Your task to perform on an android device: Go to display settings Image 0: 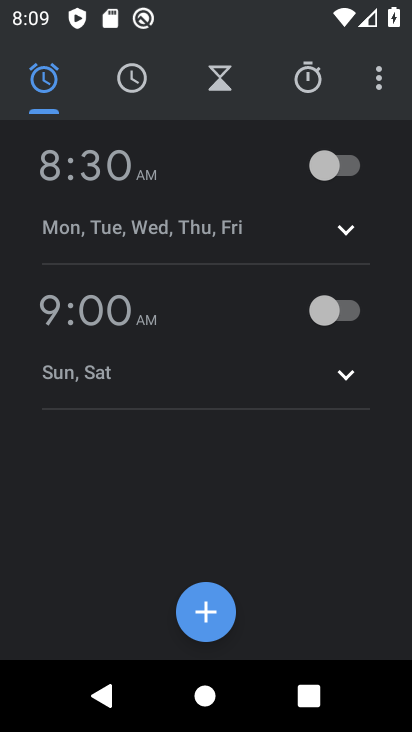
Step 0: press home button
Your task to perform on an android device: Go to display settings Image 1: 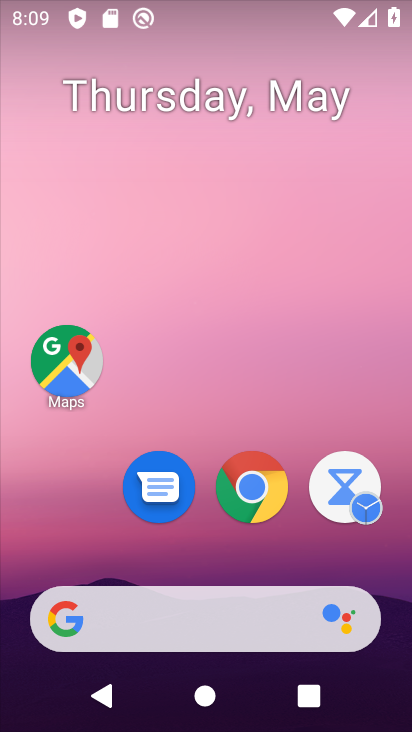
Step 1: drag from (295, 556) to (295, 172)
Your task to perform on an android device: Go to display settings Image 2: 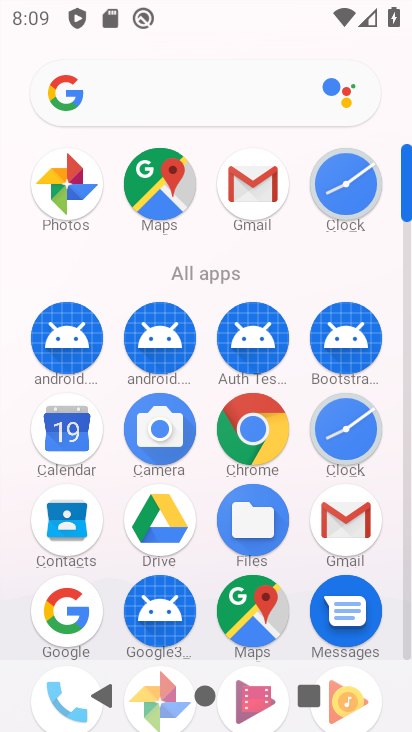
Step 2: drag from (395, 500) to (399, 207)
Your task to perform on an android device: Go to display settings Image 3: 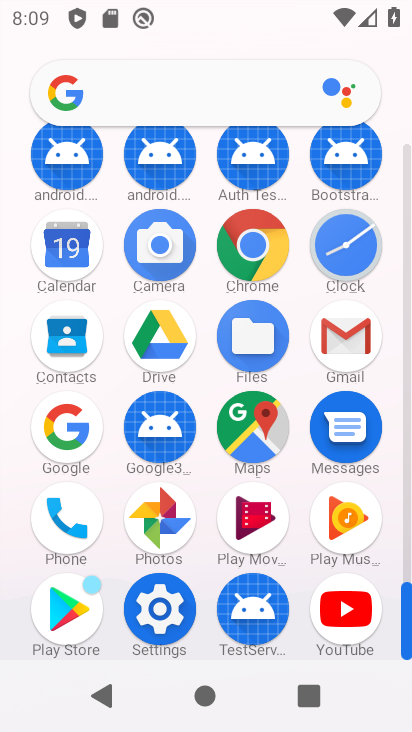
Step 3: click (157, 628)
Your task to perform on an android device: Go to display settings Image 4: 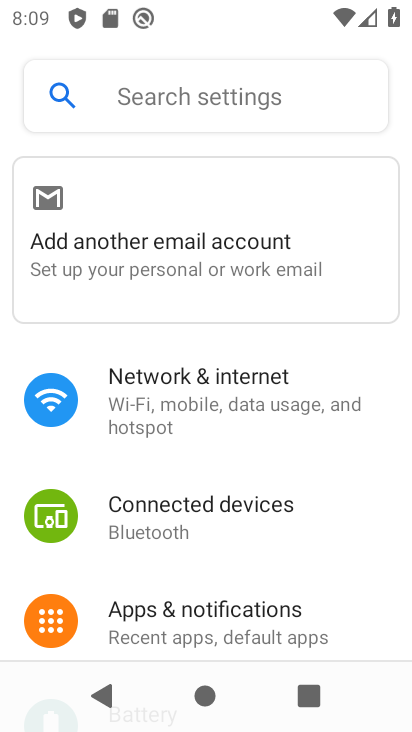
Step 4: drag from (360, 611) to (365, 491)
Your task to perform on an android device: Go to display settings Image 5: 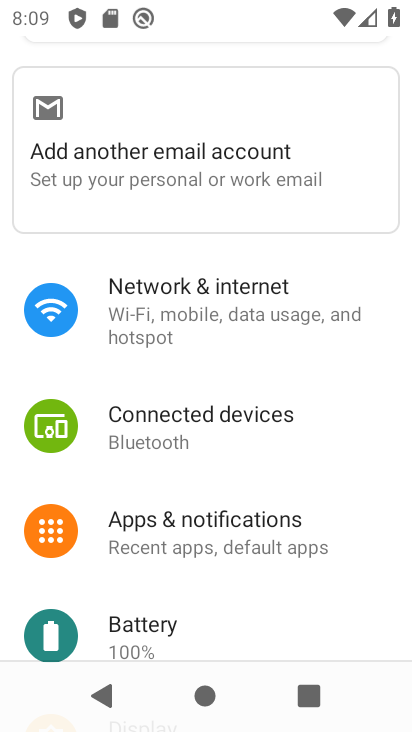
Step 5: drag from (356, 623) to (351, 475)
Your task to perform on an android device: Go to display settings Image 6: 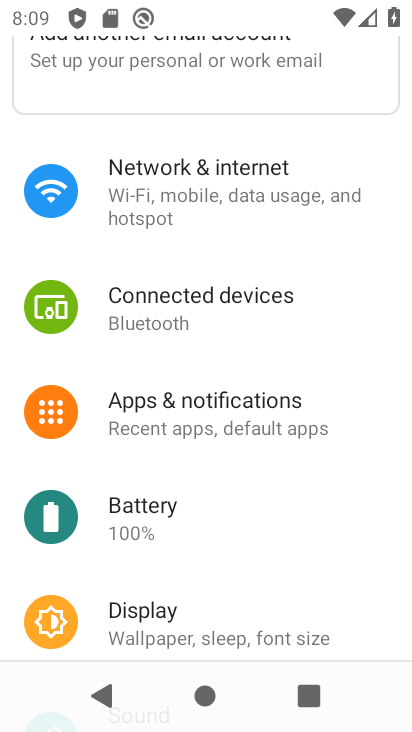
Step 6: drag from (354, 583) to (361, 451)
Your task to perform on an android device: Go to display settings Image 7: 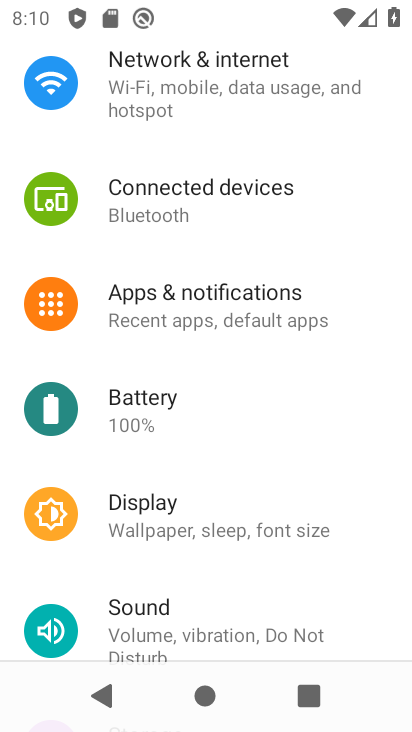
Step 7: drag from (349, 634) to (359, 505)
Your task to perform on an android device: Go to display settings Image 8: 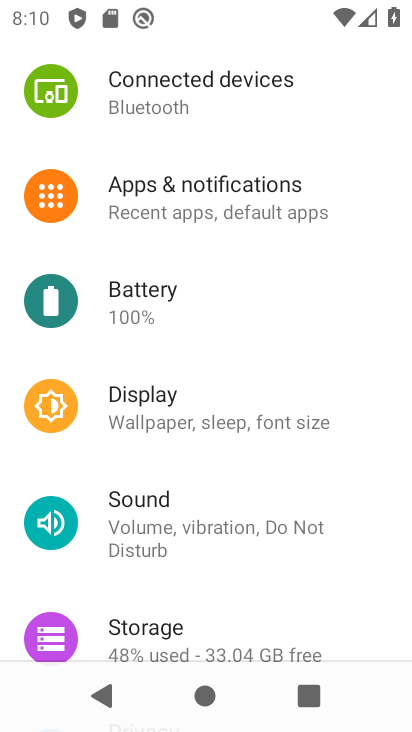
Step 8: drag from (356, 635) to (371, 527)
Your task to perform on an android device: Go to display settings Image 9: 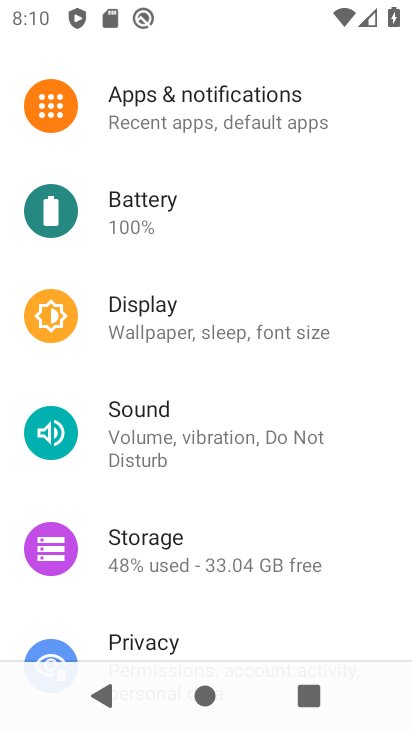
Step 9: drag from (365, 624) to (375, 488)
Your task to perform on an android device: Go to display settings Image 10: 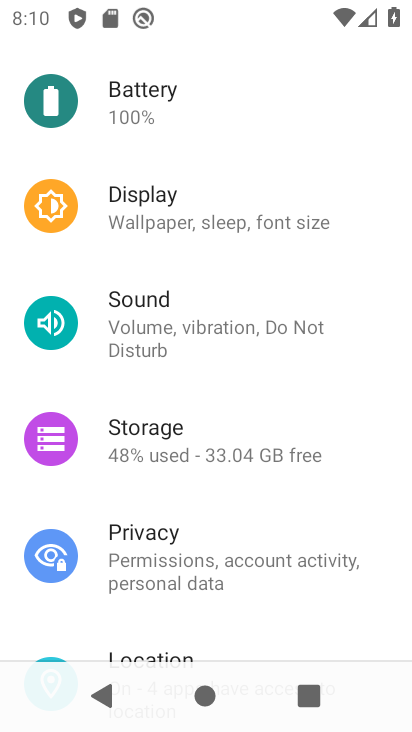
Step 10: drag from (362, 632) to (375, 501)
Your task to perform on an android device: Go to display settings Image 11: 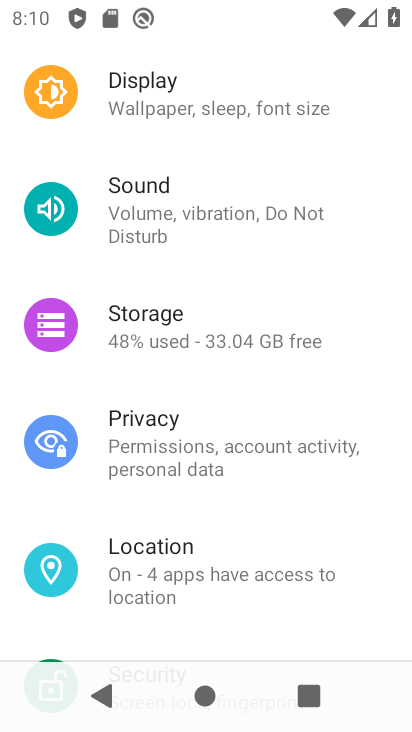
Step 11: drag from (373, 633) to (370, 523)
Your task to perform on an android device: Go to display settings Image 12: 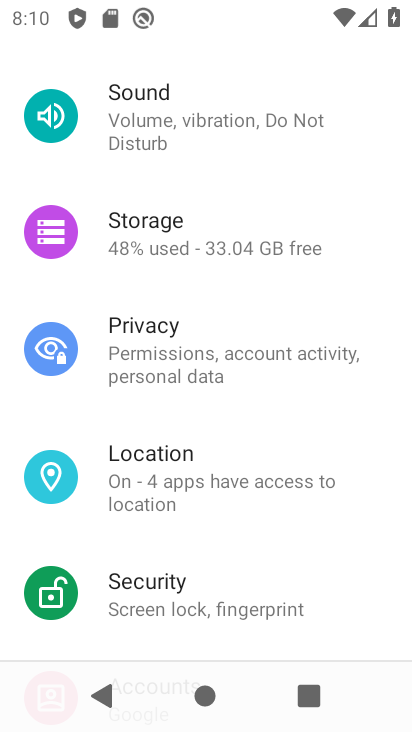
Step 12: drag from (368, 638) to (368, 521)
Your task to perform on an android device: Go to display settings Image 13: 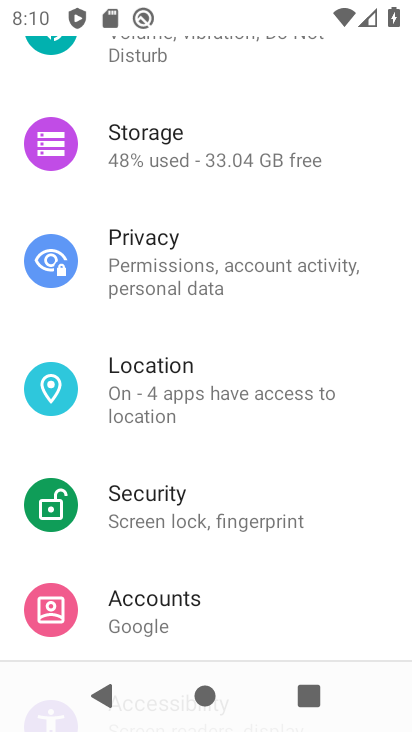
Step 13: drag from (369, 596) to (373, 408)
Your task to perform on an android device: Go to display settings Image 14: 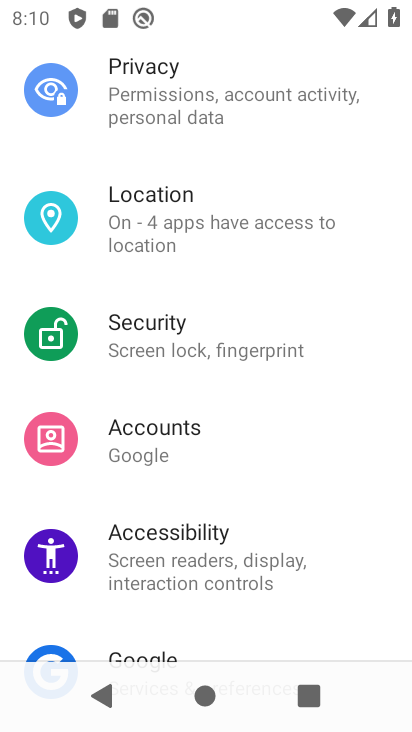
Step 14: drag from (343, 513) to (350, 363)
Your task to perform on an android device: Go to display settings Image 15: 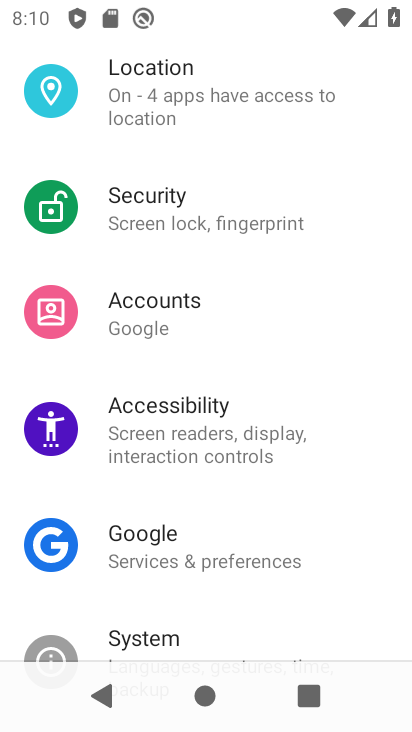
Step 15: drag from (356, 329) to (361, 422)
Your task to perform on an android device: Go to display settings Image 16: 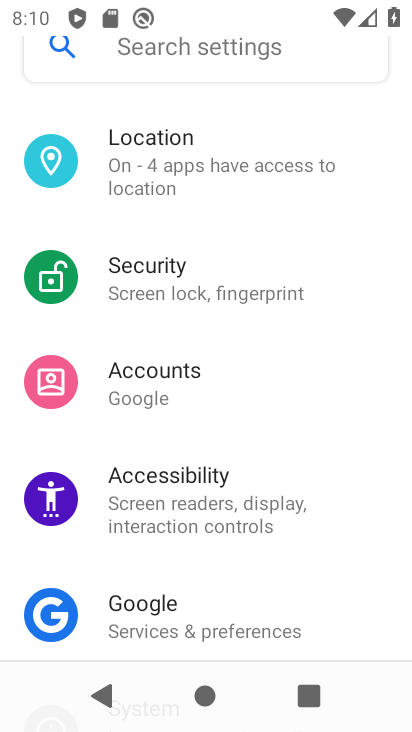
Step 16: drag from (365, 346) to (367, 431)
Your task to perform on an android device: Go to display settings Image 17: 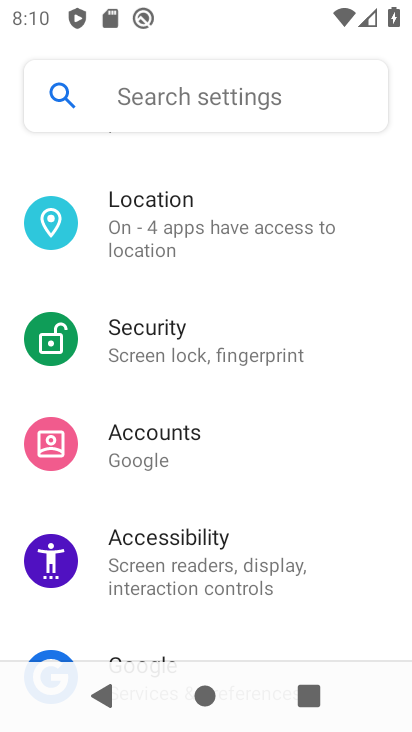
Step 17: drag from (367, 331) to (358, 419)
Your task to perform on an android device: Go to display settings Image 18: 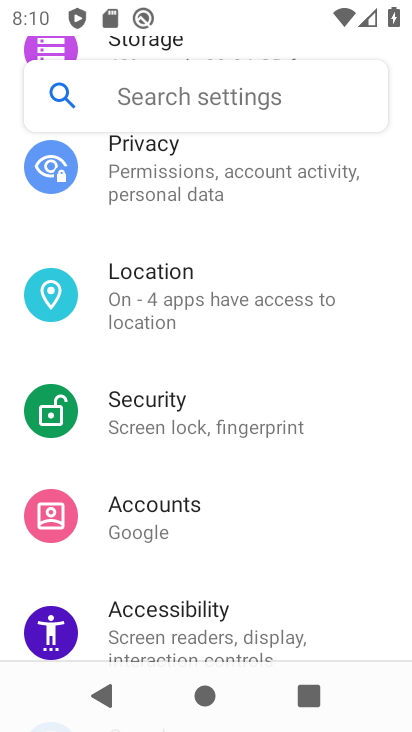
Step 18: drag from (358, 327) to (356, 414)
Your task to perform on an android device: Go to display settings Image 19: 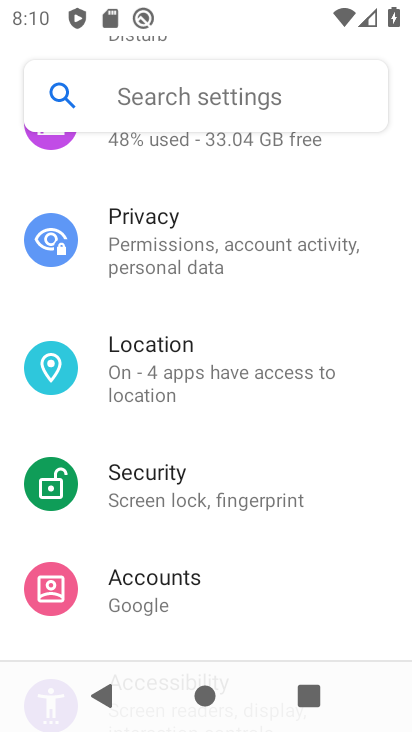
Step 19: drag from (348, 325) to (348, 436)
Your task to perform on an android device: Go to display settings Image 20: 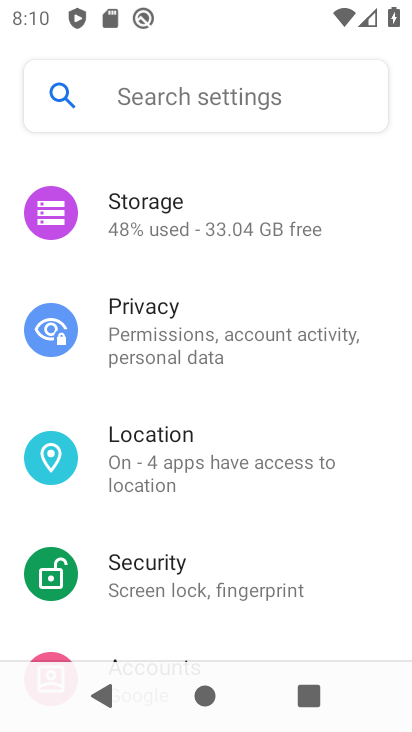
Step 20: drag from (368, 284) to (360, 404)
Your task to perform on an android device: Go to display settings Image 21: 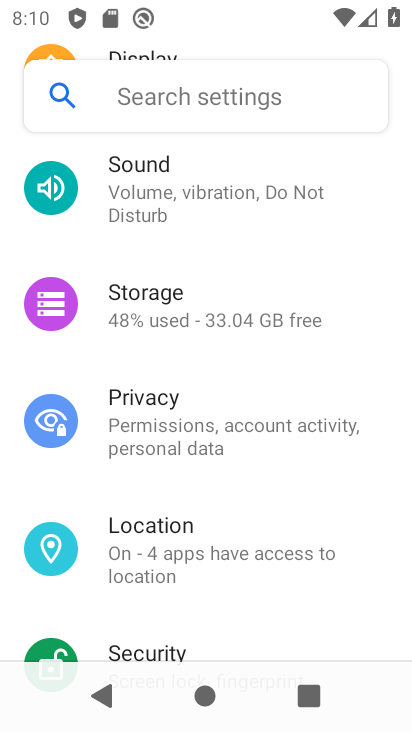
Step 21: drag from (354, 311) to (352, 404)
Your task to perform on an android device: Go to display settings Image 22: 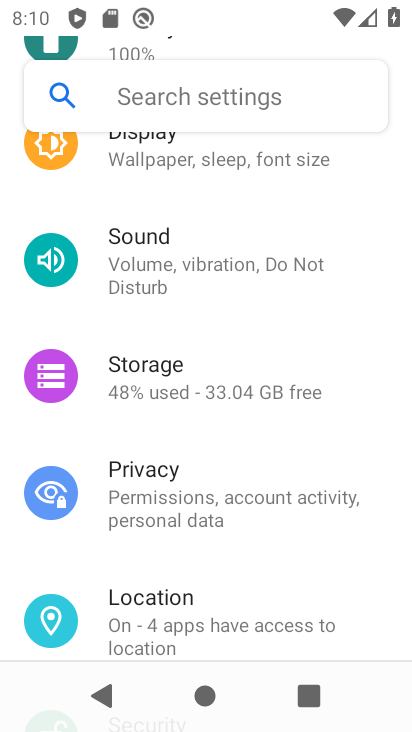
Step 22: drag from (359, 324) to (359, 403)
Your task to perform on an android device: Go to display settings Image 23: 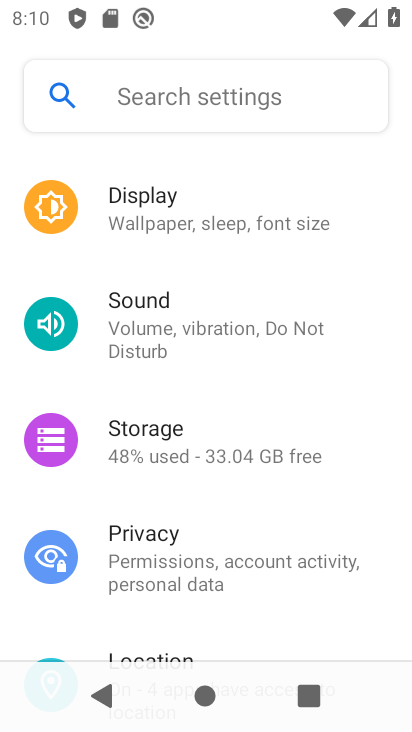
Step 23: drag from (347, 293) to (337, 409)
Your task to perform on an android device: Go to display settings Image 24: 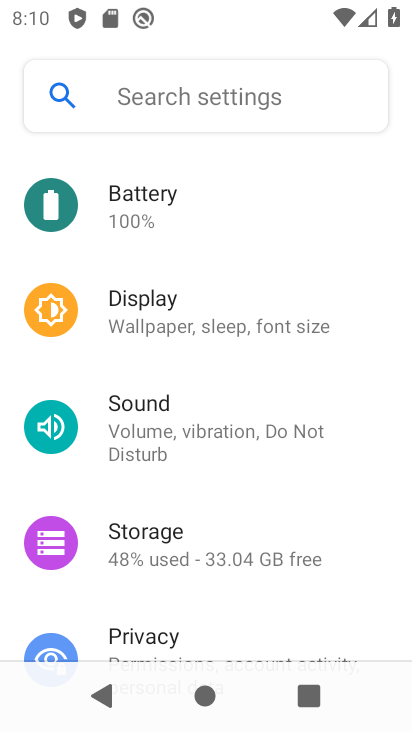
Step 24: click (295, 309)
Your task to perform on an android device: Go to display settings Image 25: 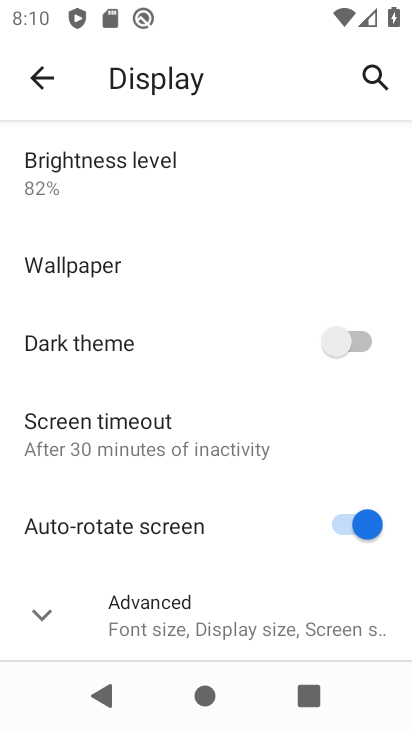
Step 25: click (178, 617)
Your task to perform on an android device: Go to display settings Image 26: 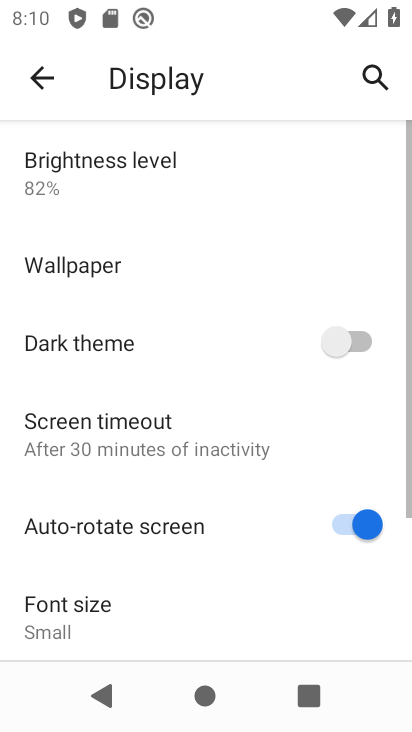
Step 26: task complete